Your task to perform on an android device: Search for seafood restaurants on Google Maps Image 0: 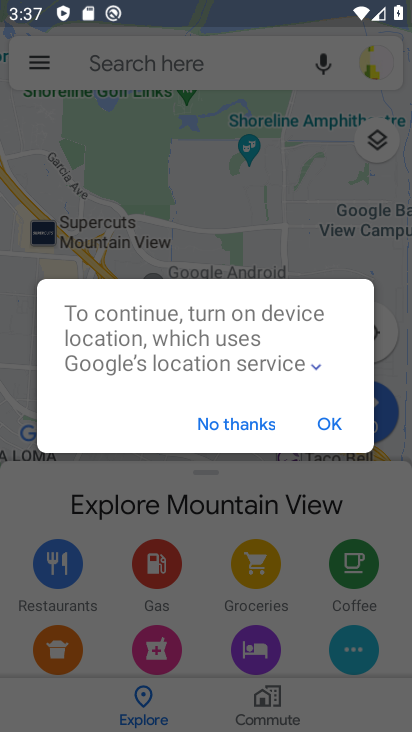
Step 0: click (247, 429)
Your task to perform on an android device: Search for seafood restaurants on Google Maps Image 1: 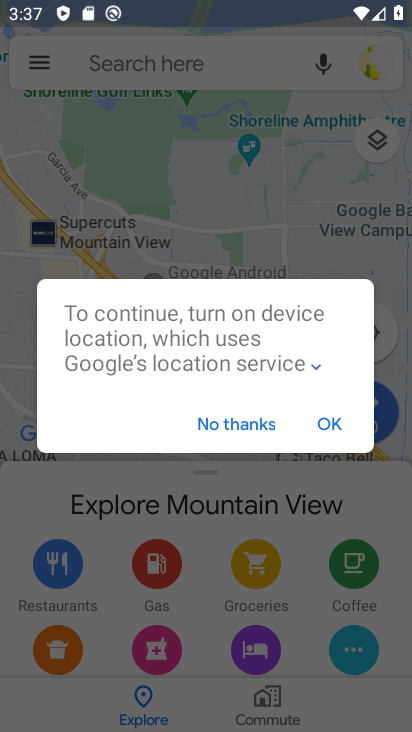
Step 1: click (330, 416)
Your task to perform on an android device: Search for seafood restaurants on Google Maps Image 2: 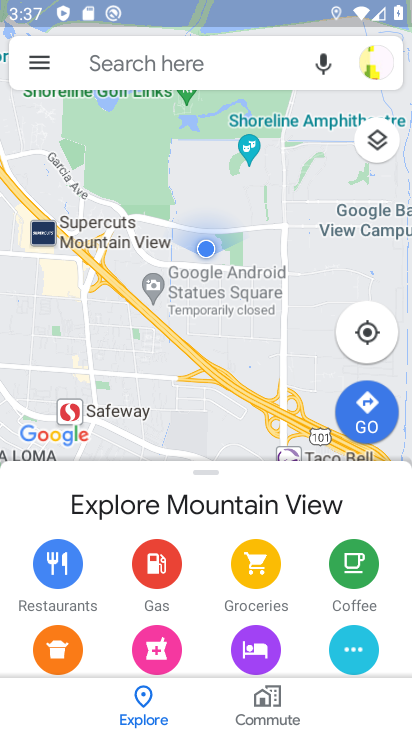
Step 2: press home button
Your task to perform on an android device: Search for seafood restaurants on Google Maps Image 3: 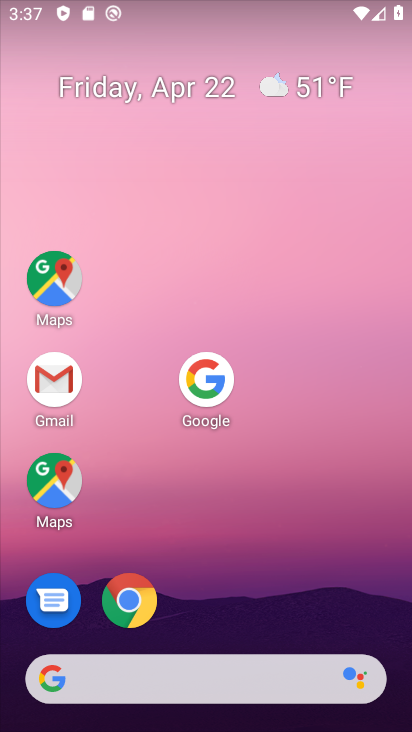
Step 3: drag from (252, 598) to (104, 77)
Your task to perform on an android device: Search for seafood restaurants on Google Maps Image 4: 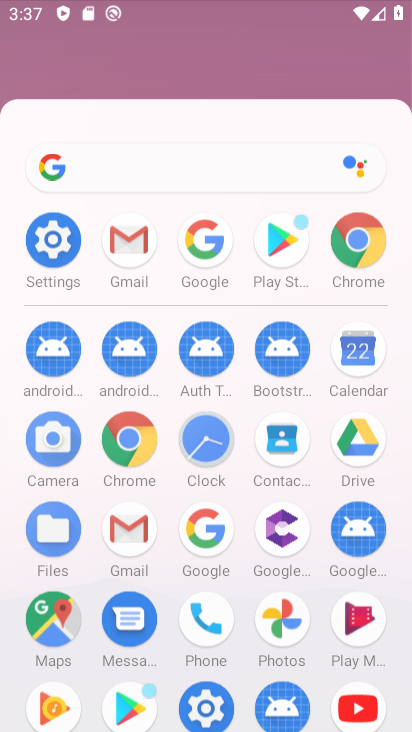
Step 4: drag from (262, 550) to (124, 52)
Your task to perform on an android device: Search for seafood restaurants on Google Maps Image 5: 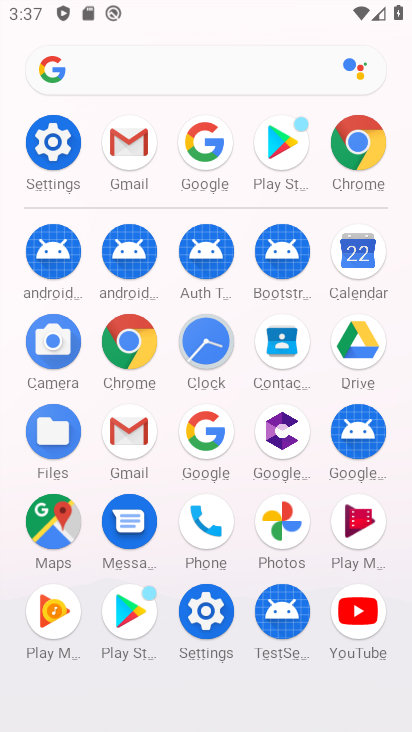
Step 5: click (54, 512)
Your task to perform on an android device: Search for seafood restaurants on Google Maps Image 6: 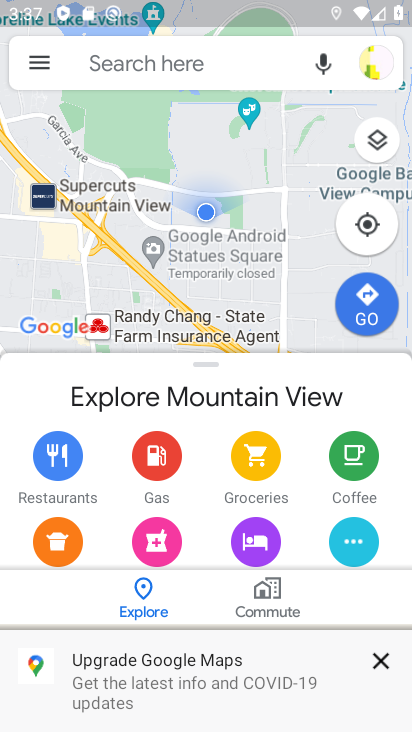
Step 6: click (84, 57)
Your task to perform on an android device: Search for seafood restaurants on Google Maps Image 7: 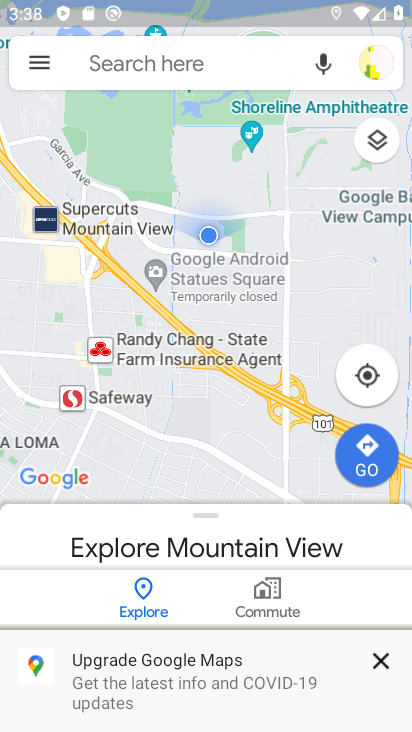
Step 7: type "seafood restaurants"
Your task to perform on an android device: Search for seafood restaurants on Google Maps Image 8: 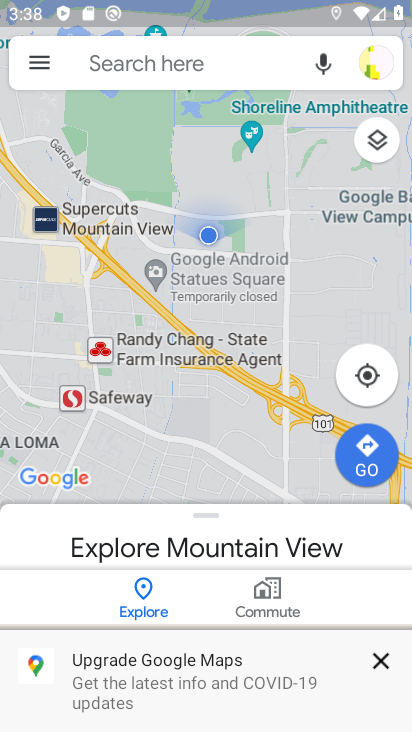
Step 8: click (113, 58)
Your task to perform on an android device: Search for seafood restaurants on Google Maps Image 9: 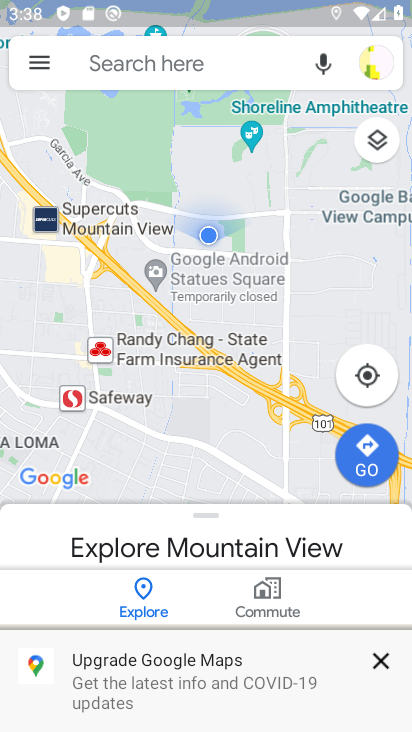
Step 9: click (109, 83)
Your task to perform on an android device: Search for seafood restaurants on Google Maps Image 10: 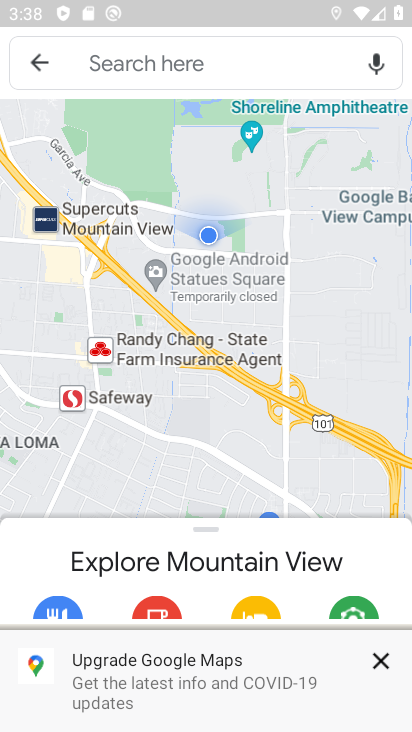
Step 10: click (101, 110)
Your task to perform on an android device: Search for seafood restaurants on Google Maps Image 11: 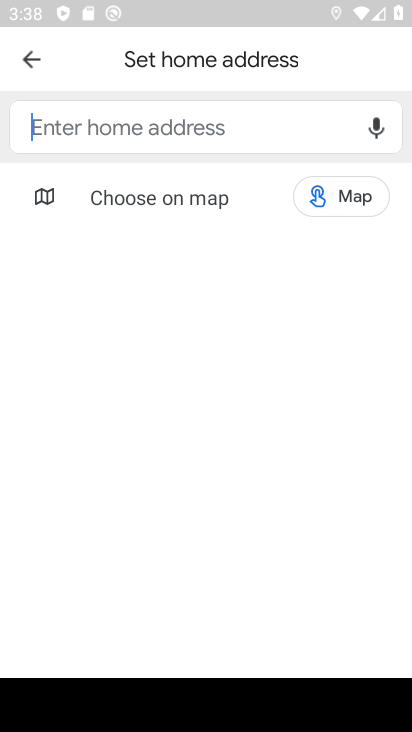
Step 11: click (31, 55)
Your task to perform on an android device: Search for seafood restaurants on Google Maps Image 12: 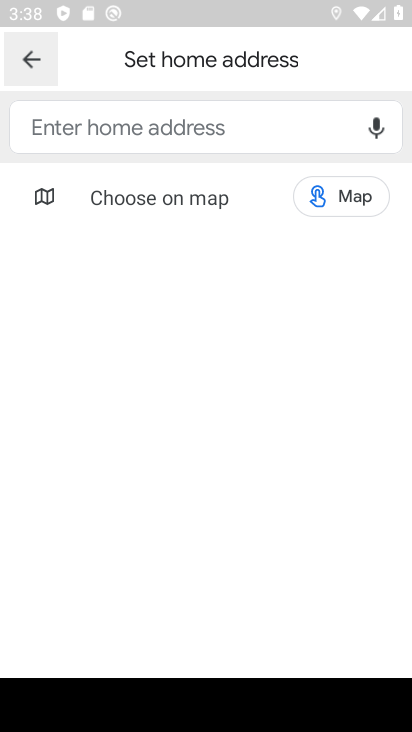
Step 12: click (29, 58)
Your task to perform on an android device: Search for seafood restaurants on Google Maps Image 13: 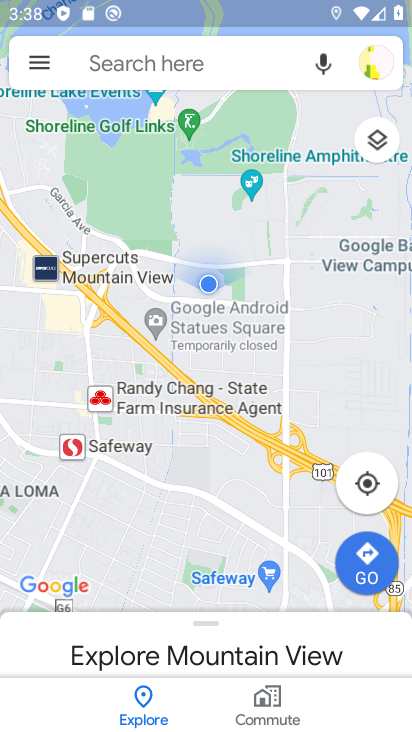
Step 13: click (90, 62)
Your task to perform on an android device: Search for seafood restaurants on Google Maps Image 14: 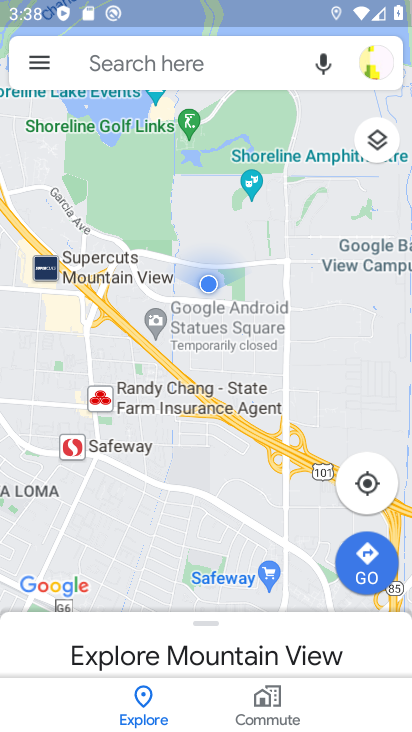
Step 14: click (90, 62)
Your task to perform on an android device: Search for seafood restaurants on Google Maps Image 15: 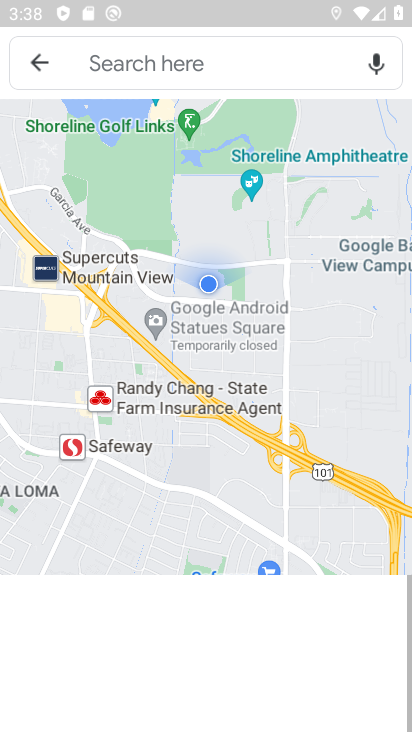
Step 15: click (100, 74)
Your task to perform on an android device: Search for seafood restaurants on Google Maps Image 16: 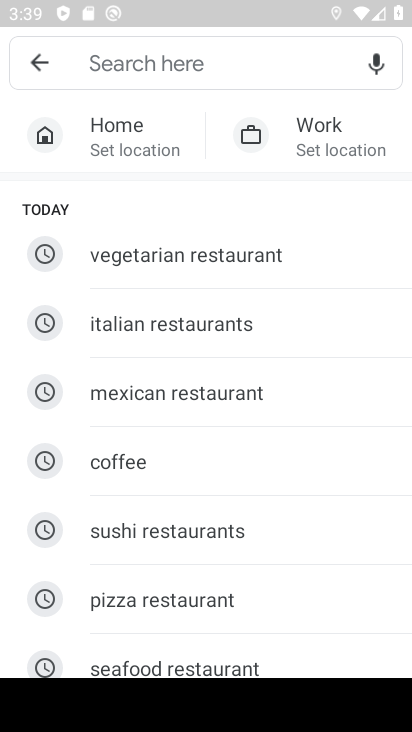
Step 16: type "seafood resturants"
Your task to perform on an android device: Search for seafood restaurants on Google Maps Image 17: 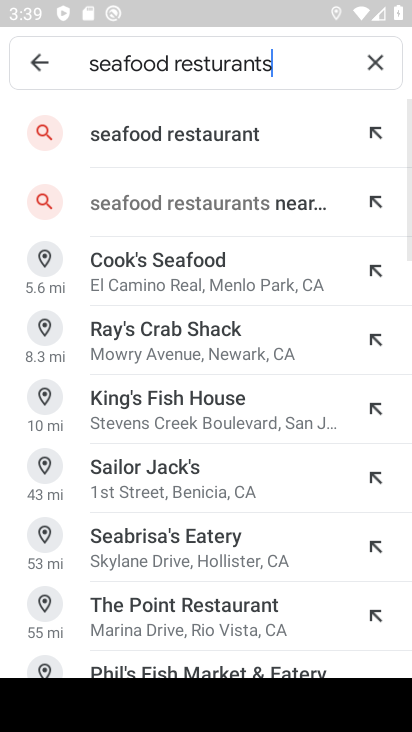
Step 17: click (181, 130)
Your task to perform on an android device: Search for seafood restaurants on Google Maps Image 18: 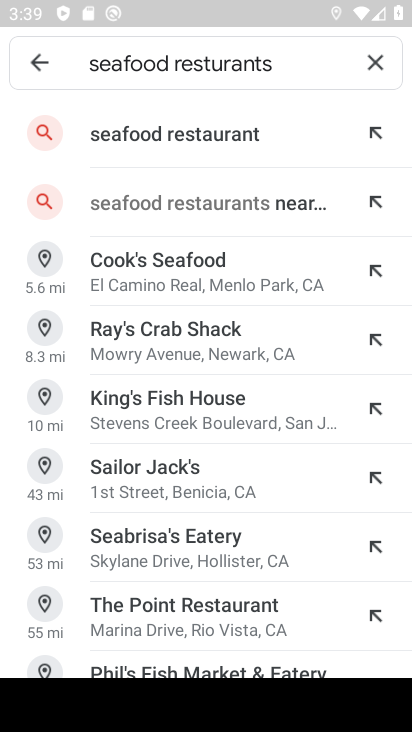
Step 18: click (190, 138)
Your task to perform on an android device: Search for seafood restaurants on Google Maps Image 19: 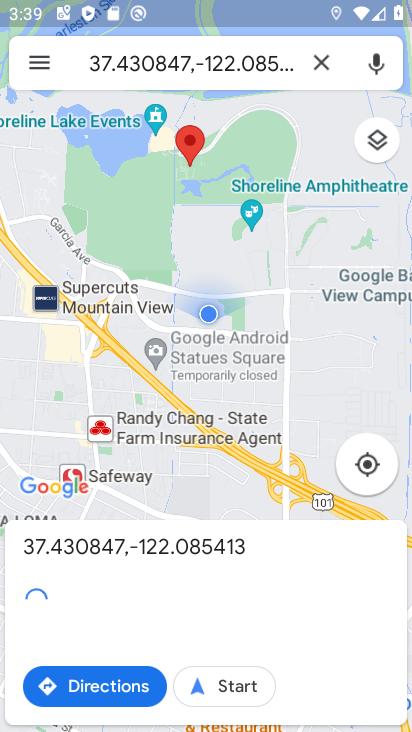
Step 19: task complete